Your task to perform on an android device: Do I have any events this weekend? Image 0: 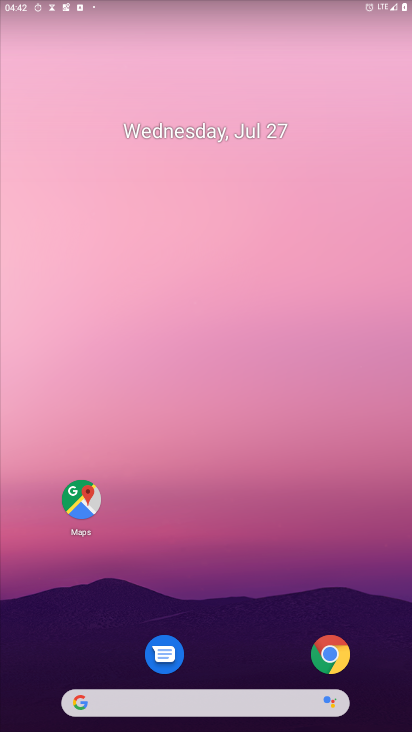
Step 0: drag from (132, 693) to (184, 134)
Your task to perform on an android device: Do I have any events this weekend? Image 1: 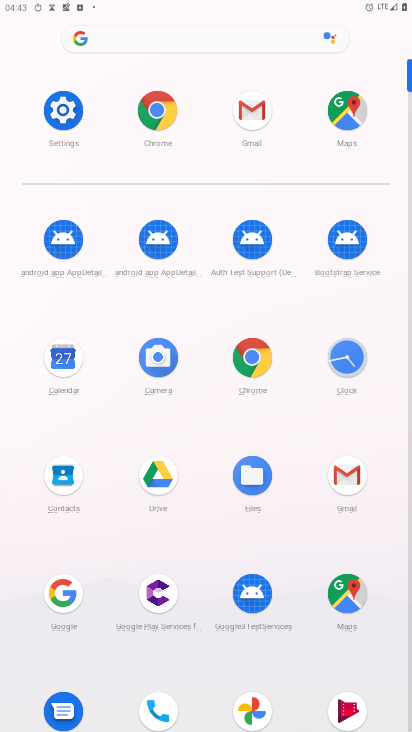
Step 1: click (63, 366)
Your task to perform on an android device: Do I have any events this weekend? Image 2: 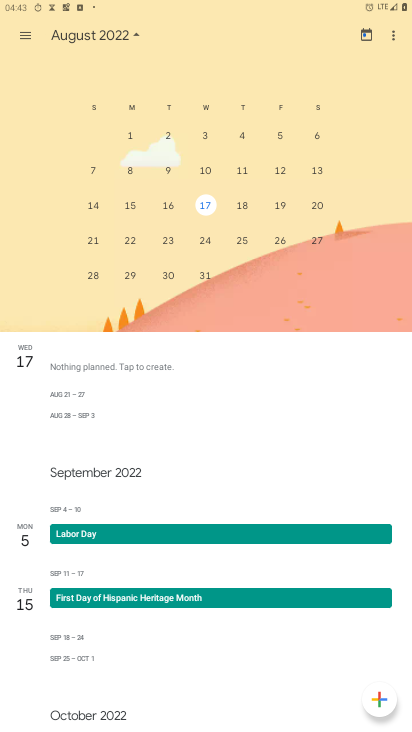
Step 2: drag from (100, 214) to (353, 222)
Your task to perform on an android device: Do I have any events this weekend? Image 3: 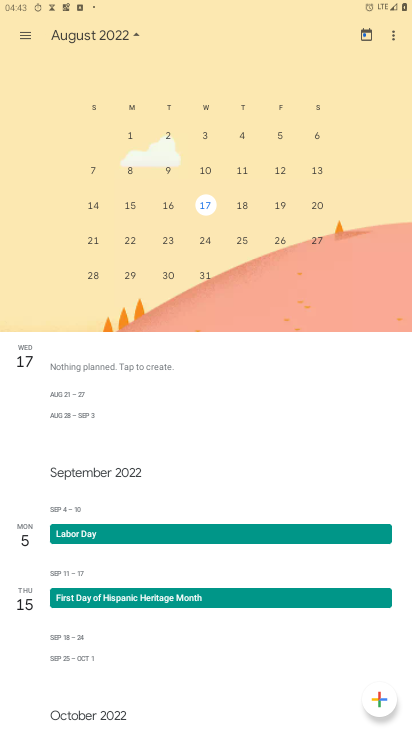
Step 3: click (319, 204)
Your task to perform on an android device: Do I have any events this weekend? Image 4: 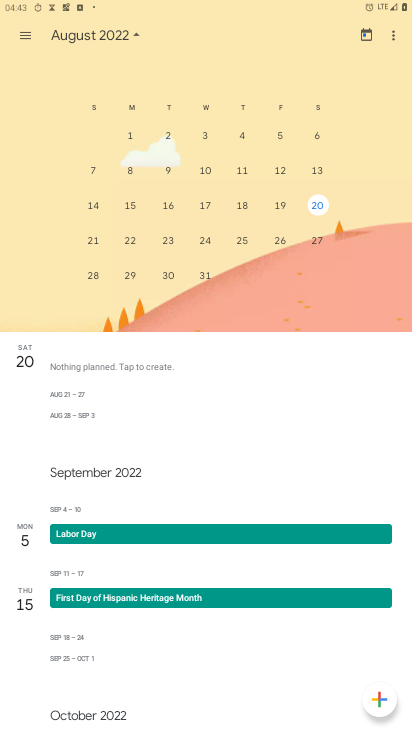
Step 4: task complete